Your task to perform on an android device: turn on showing notifications on the lock screen Image 0: 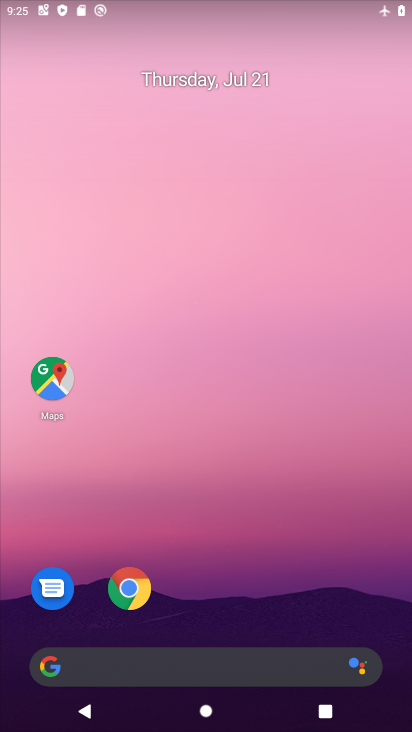
Step 0: drag from (382, 450) to (85, 329)
Your task to perform on an android device: turn on showing notifications on the lock screen Image 1: 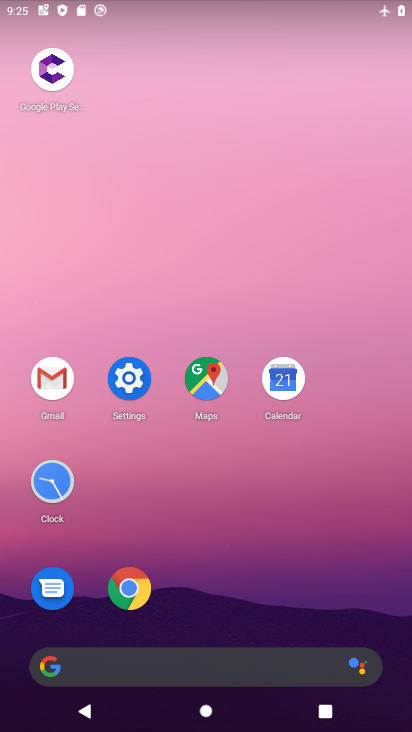
Step 1: click (133, 388)
Your task to perform on an android device: turn on showing notifications on the lock screen Image 2: 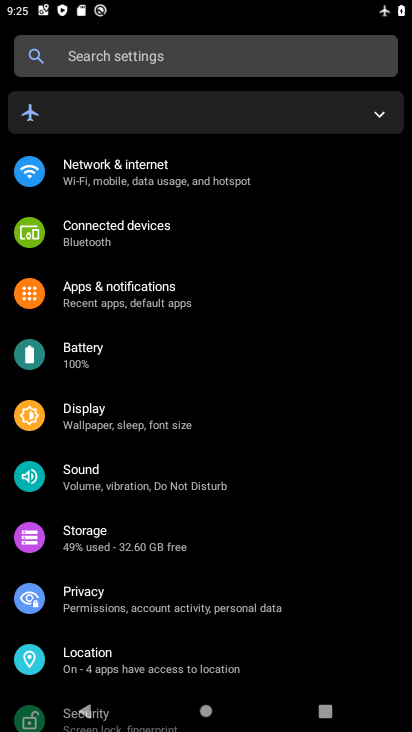
Step 2: click (115, 302)
Your task to perform on an android device: turn on showing notifications on the lock screen Image 3: 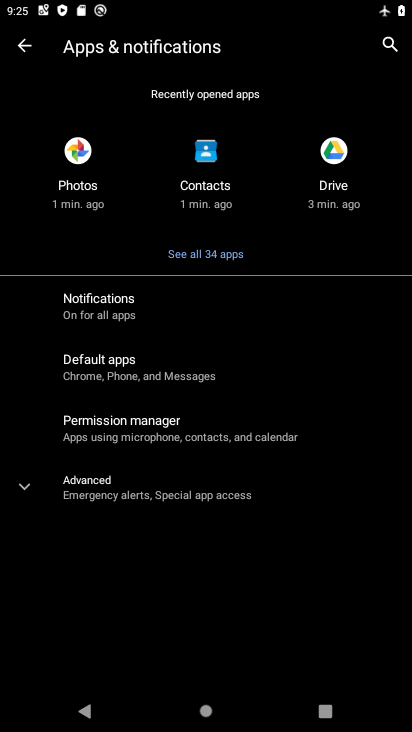
Step 3: click (105, 311)
Your task to perform on an android device: turn on showing notifications on the lock screen Image 4: 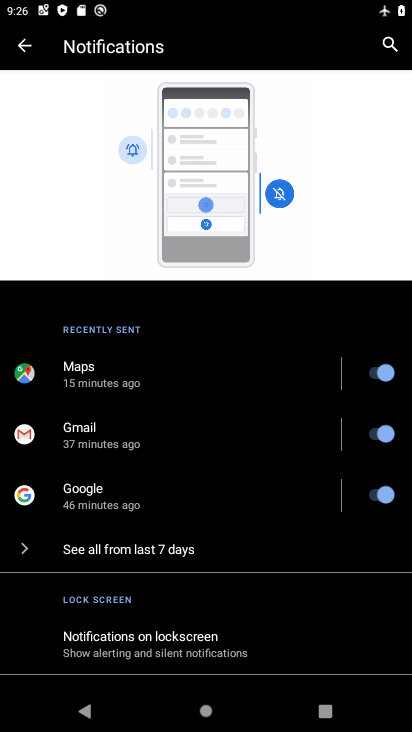
Step 4: click (171, 641)
Your task to perform on an android device: turn on showing notifications on the lock screen Image 5: 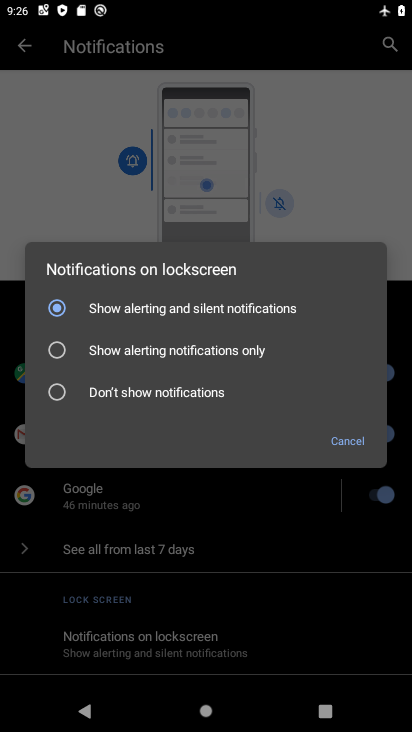
Step 5: task complete